Your task to perform on an android device: empty trash in google photos Image 0: 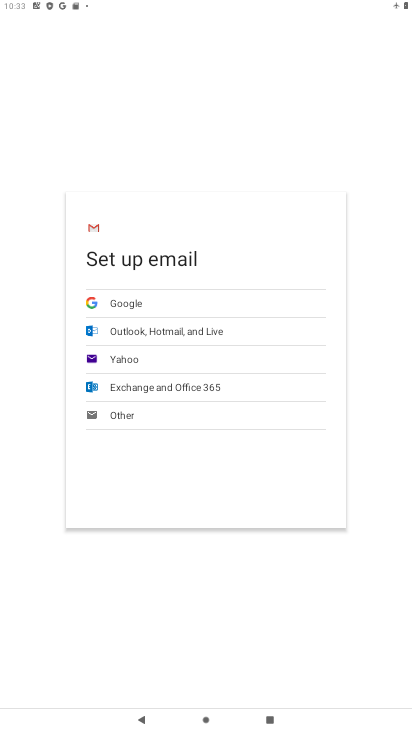
Step 0: press home button
Your task to perform on an android device: empty trash in google photos Image 1: 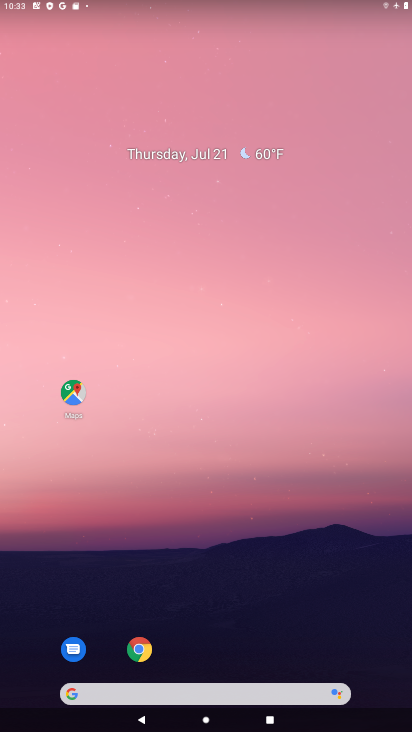
Step 1: drag from (172, 691) to (229, 225)
Your task to perform on an android device: empty trash in google photos Image 2: 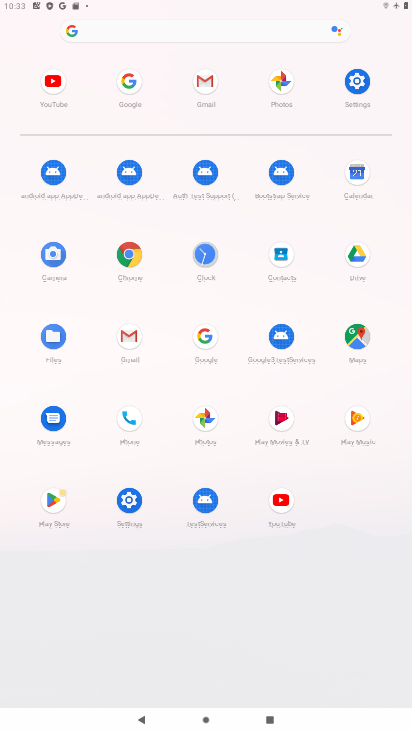
Step 2: click (283, 81)
Your task to perform on an android device: empty trash in google photos Image 3: 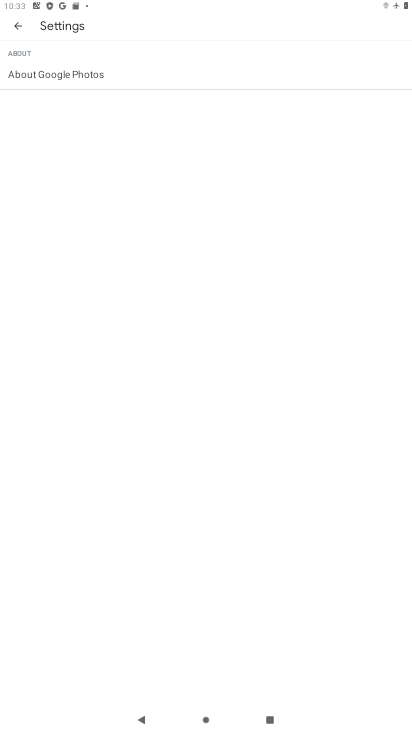
Step 3: press back button
Your task to perform on an android device: empty trash in google photos Image 4: 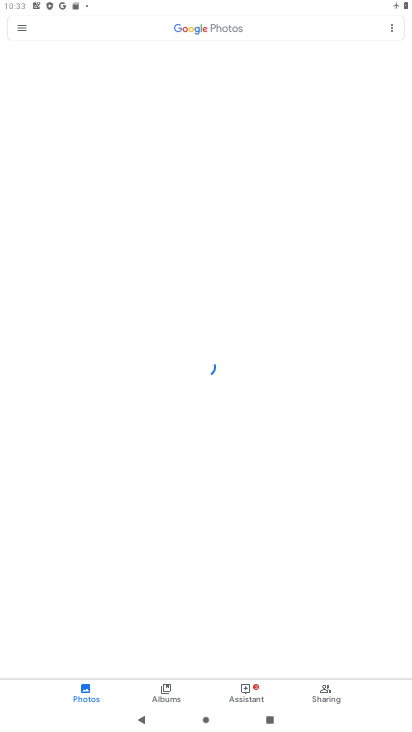
Step 4: click (20, 30)
Your task to perform on an android device: empty trash in google photos Image 5: 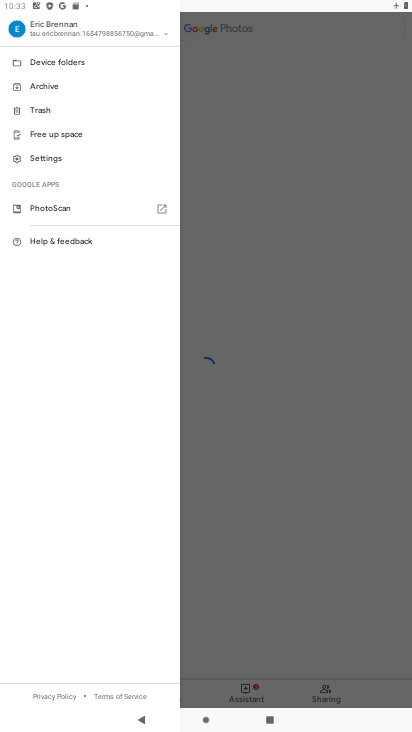
Step 5: click (49, 104)
Your task to perform on an android device: empty trash in google photos Image 6: 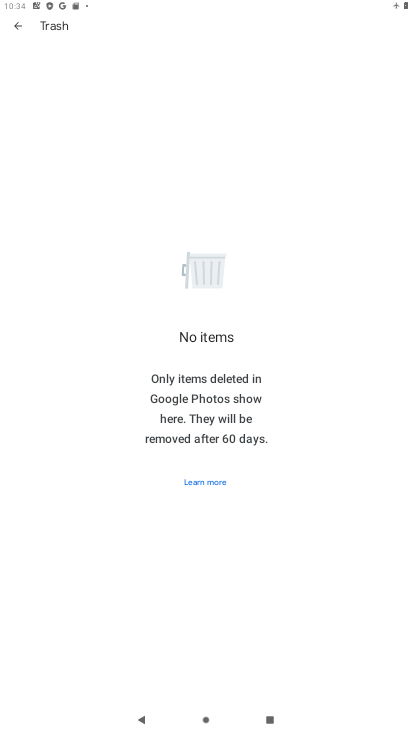
Step 6: task complete